Your task to perform on an android device: Open maps Image 0: 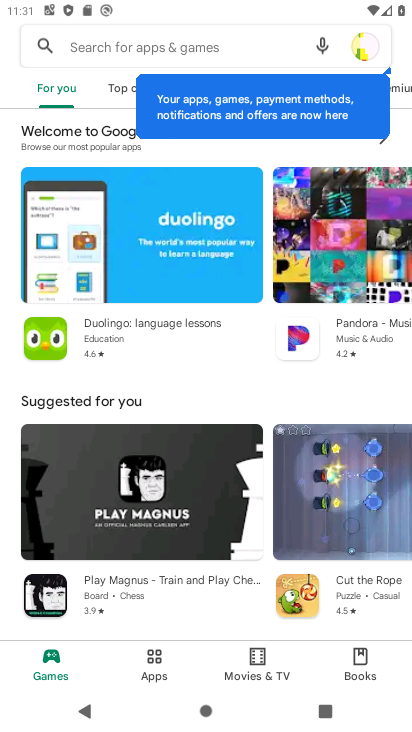
Step 0: press home button
Your task to perform on an android device: Open maps Image 1: 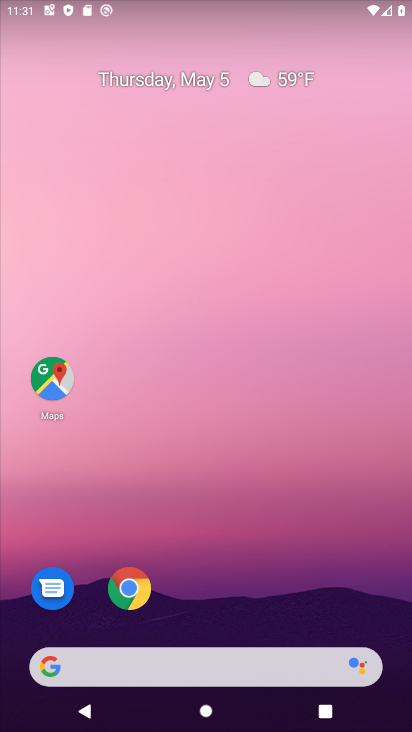
Step 1: drag from (268, 528) to (322, 68)
Your task to perform on an android device: Open maps Image 2: 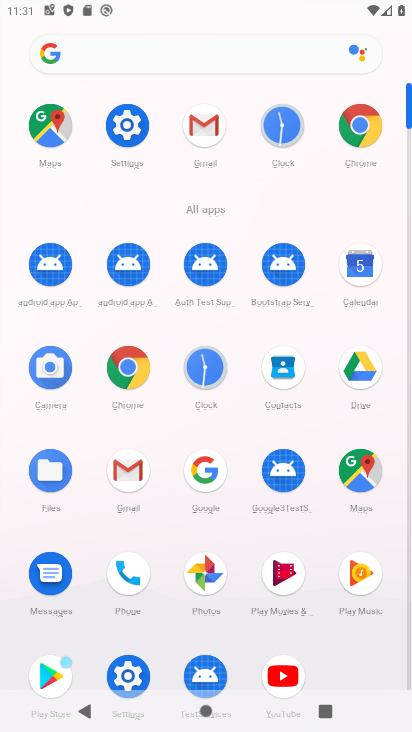
Step 2: click (38, 126)
Your task to perform on an android device: Open maps Image 3: 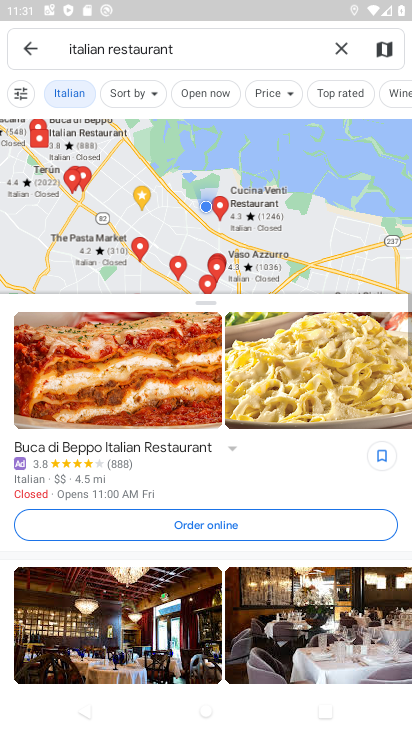
Step 3: click (336, 46)
Your task to perform on an android device: Open maps Image 4: 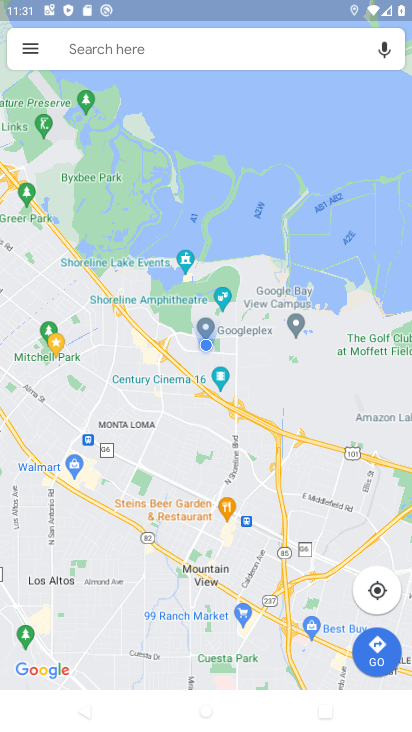
Step 4: task complete